Your task to perform on an android device: change the clock display to show seconds Image 0: 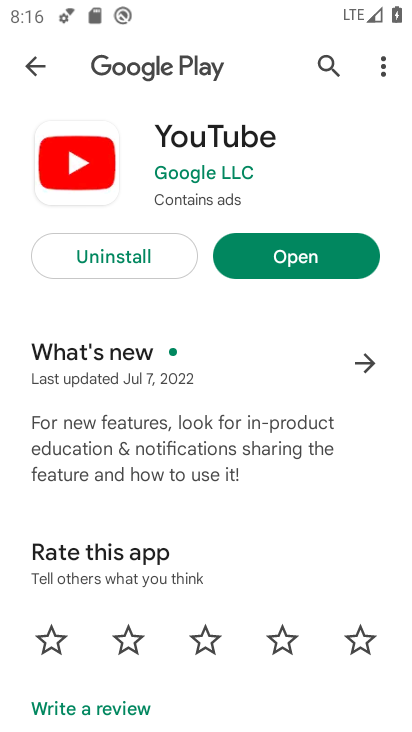
Step 0: press home button
Your task to perform on an android device: change the clock display to show seconds Image 1: 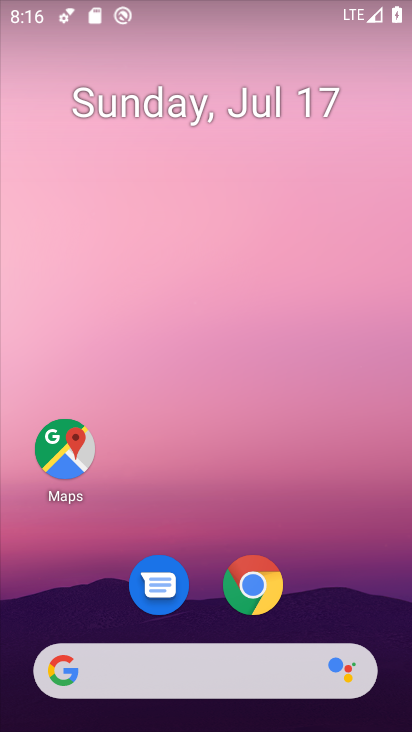
Step 1: drag from (347, 516) to (352, 56)
Your task to perform on an android device: change the clock display to show seconds Image 2: 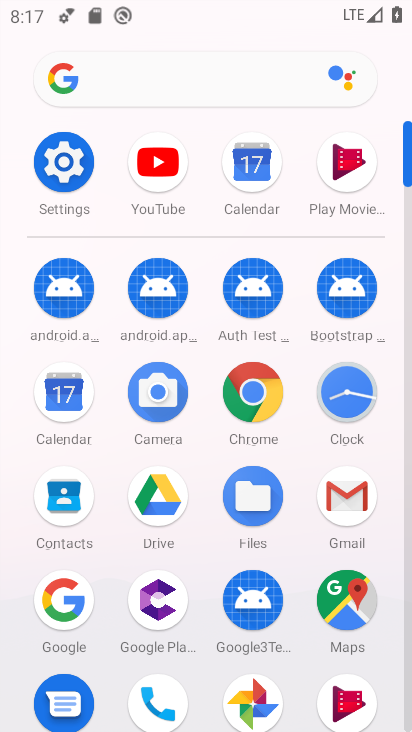
Step 2: click (332, 408)
Your task to perform on an android device: change the clock display to show seconds Image 3: 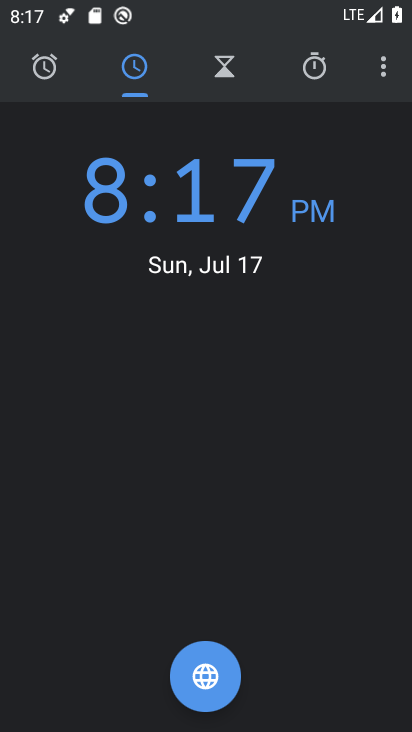
Step 3: click (376, 68)
Your task to perform on an android device: change the clock display to show seconds Image 4: 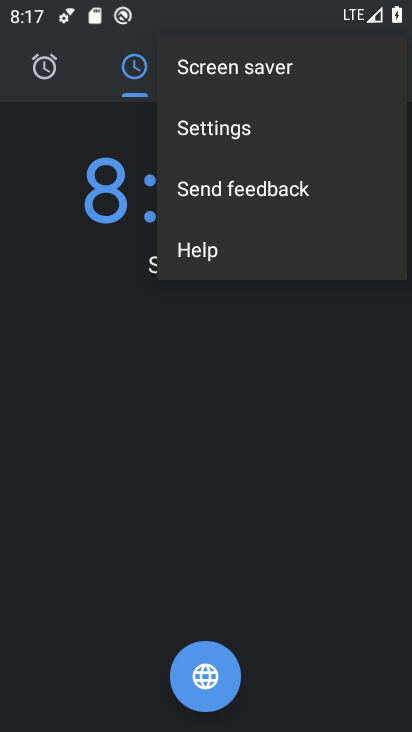
Step 4: click (287, 142)
Your task to perform on an android device: change the clock display to show seconds Image 5: 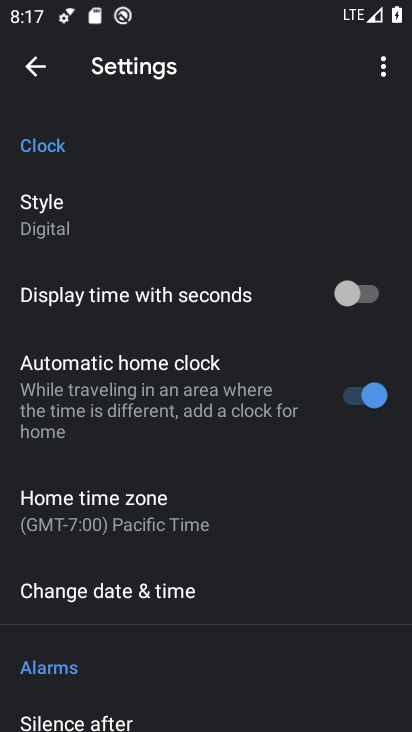
Step 5: click (364, 287)
Your task to perform on an android device: change the clock display to show seconds Image 6: 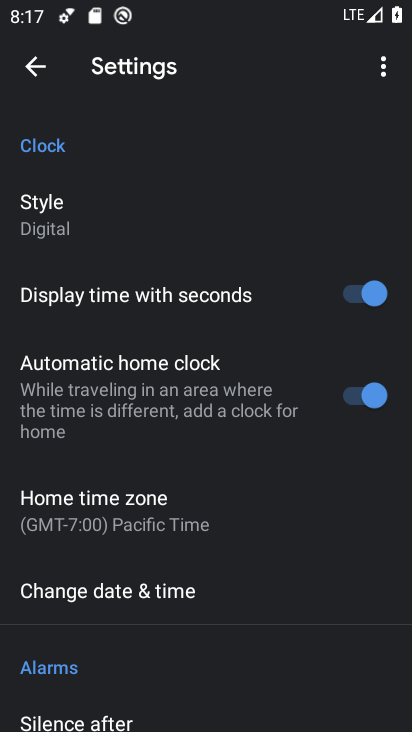
Step 6: task complete